Your task to perform on an android device: change alarm snooze length Image 0: 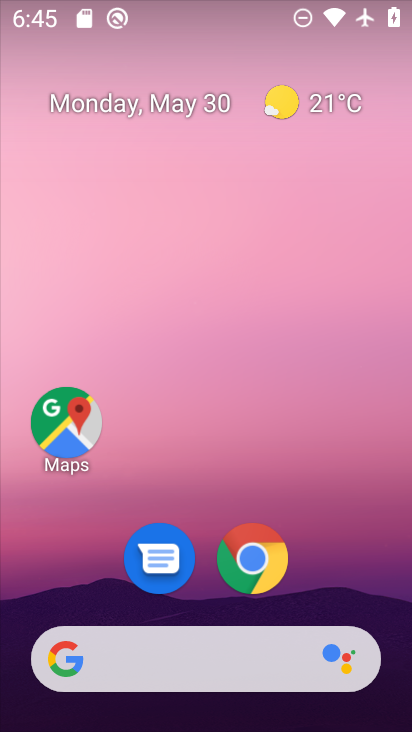
Step 0: drag from (348, 546) to (263, 65)
Your task to perform on an android device: change alarm snooze length Image 1: 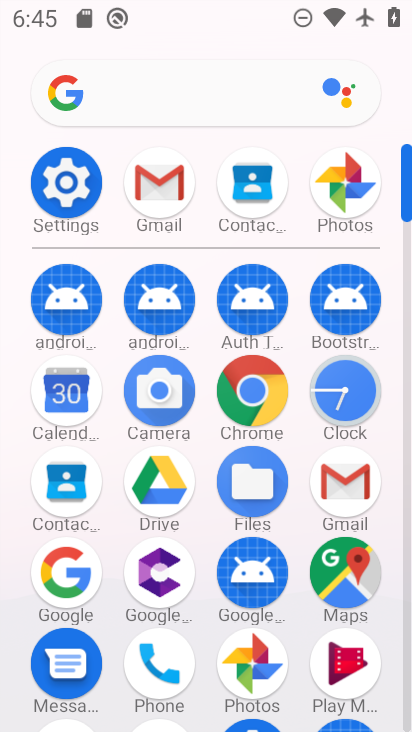
Step 1: click (329, 383)
Your task to perform on an android device: change alarm snooze length Image 2: 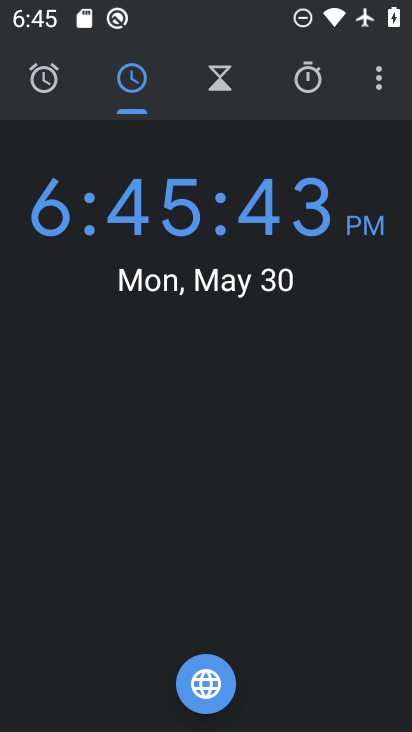
Step 2: click (379, 75)
Your task to perform on an android device: change alarm snooze length Image 3: 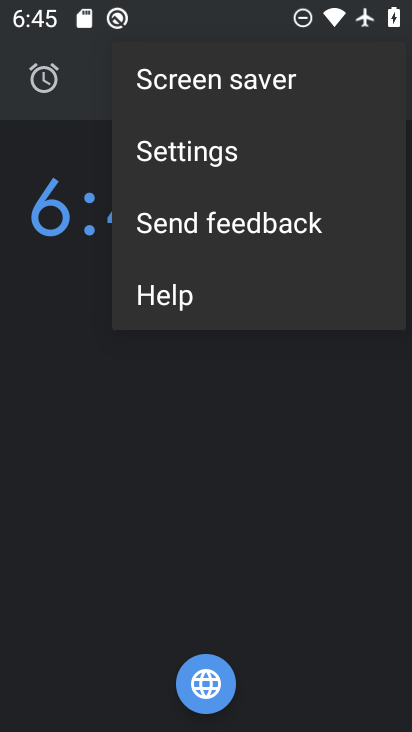
Step 3: click (211, 147)
Your task to perform on an android device: change alarm snooze length Image 4: 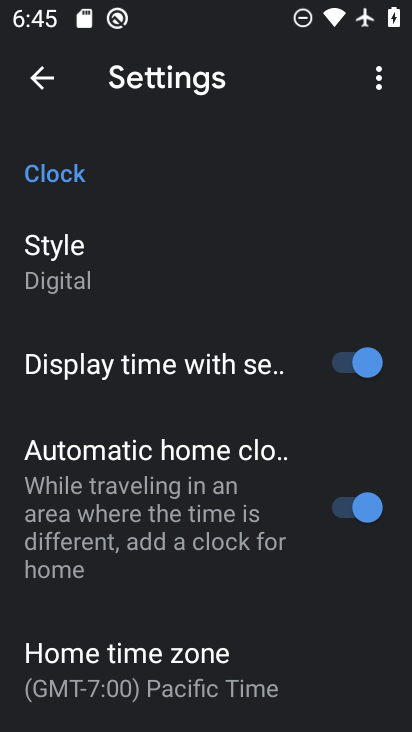
Step 4: drag from (260, 595) to (235, 250)
Your task to perform on an android device: change alarm snooze length Image 5: 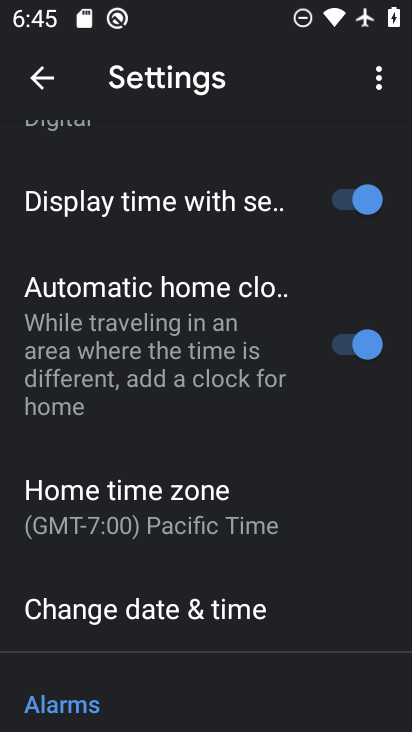
Step 5: drag from (243, 584) to (159, 207)
Your task to perform on an android device: change alarm snooze length Image 6: 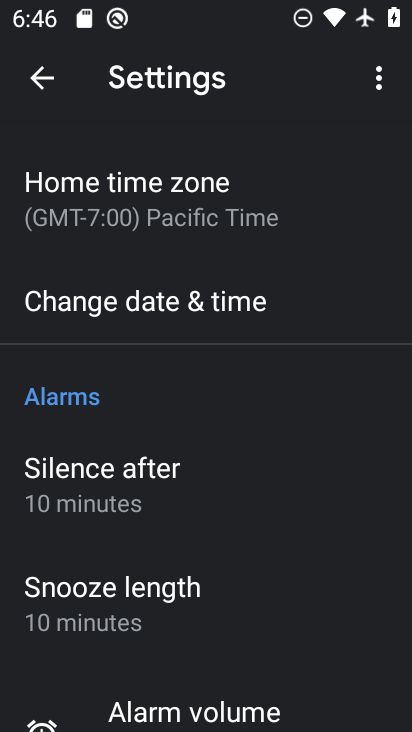
Step 6: click (147, 591)
Your task to perform on an android device: change alarm snooze length Image 7: 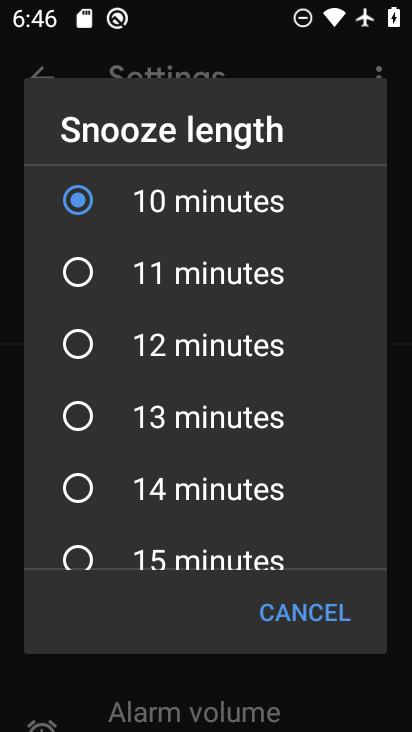
Step 7: click (79, 415)
Your task to perform on an android device: change alarm snooze length Image 8: 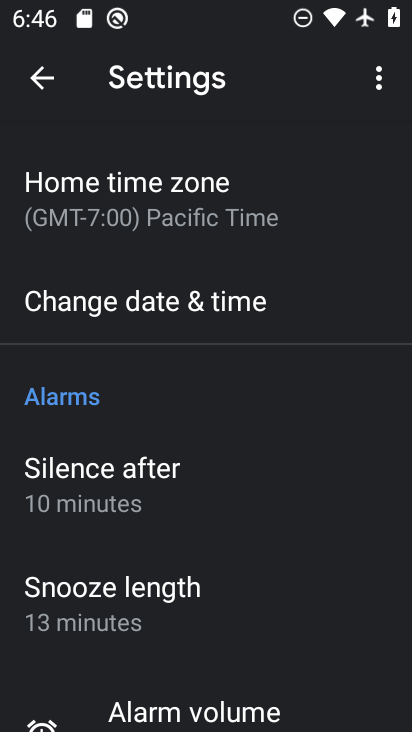
Step 8: task complete